Your task to perform on an android device: Open calendar and show me the third week of next month Image 0: 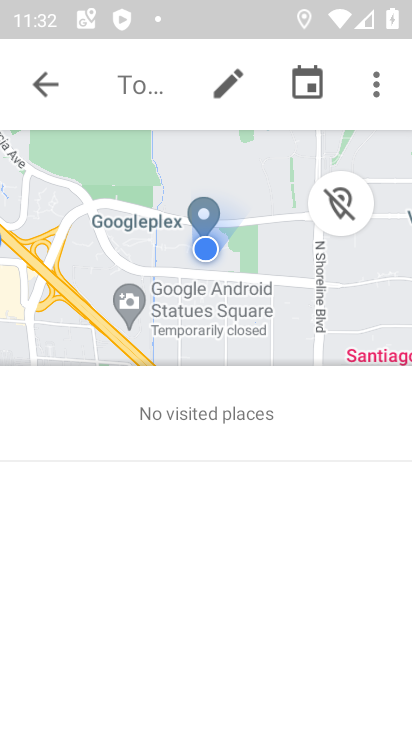
Step 0: press home button
Your task to perform on an android device: Open calendar and show me the third week of next month Image 1: 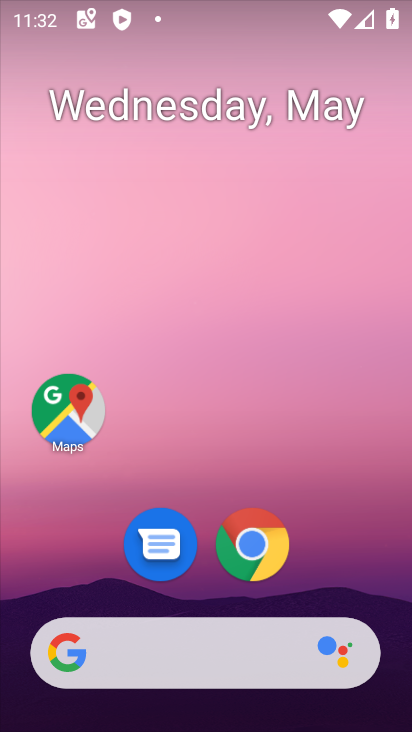
Step 1: click (119, 175)
Your task to perform on an android device: Open calendar and show me the third week of next month Image 2: 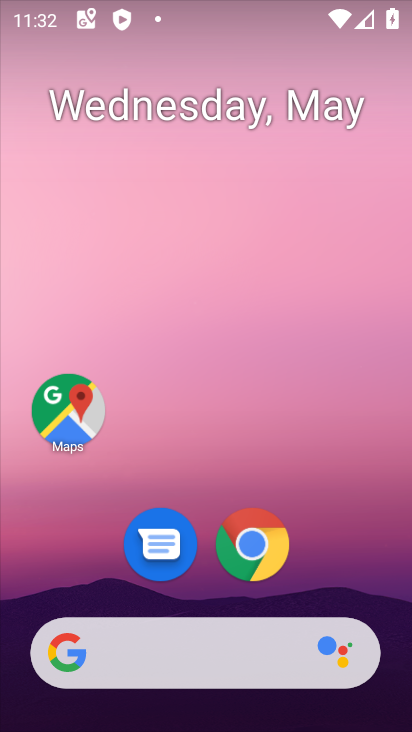
Step 2: click (116, 284)
Your task to perform on an android device: Open calendar and show me the third week of next month Image 3: 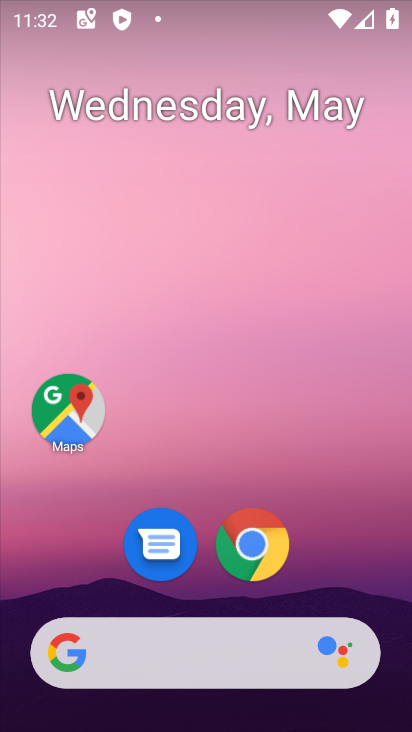
Step 3: drag from (185, 477) to (218, 73)
Your task to perform on an android device: Open calendar and show me the third week of next month Image 4: 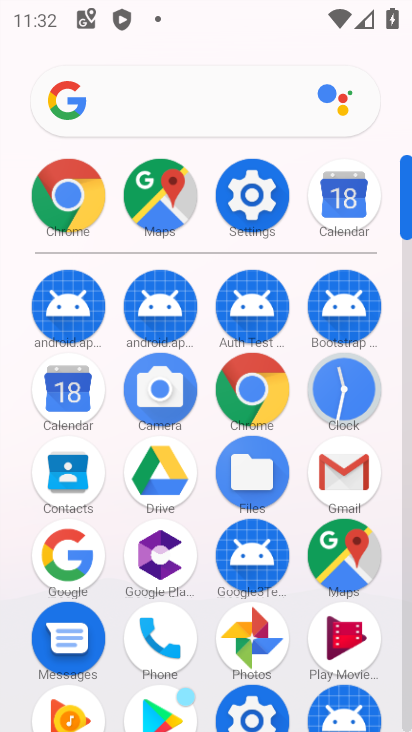
Step 4: click (70, 403)
Your task to perform on an android device: Open calendar and show me the third week of next month Image 5: 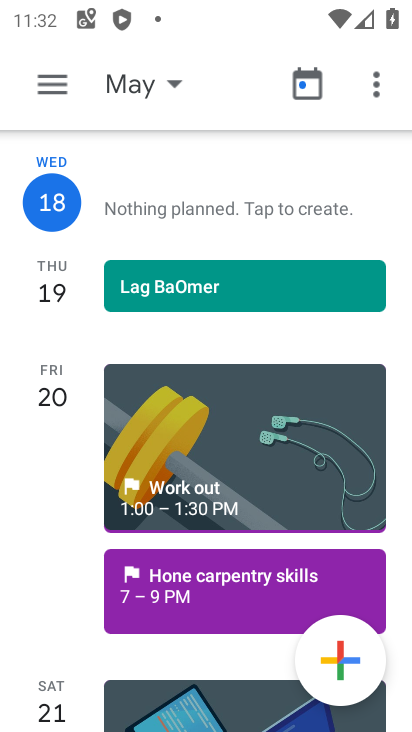
Step 5: click (172, 79)
Your task to perform on an android device: Open calendar and show me the third week of next month Image 6: 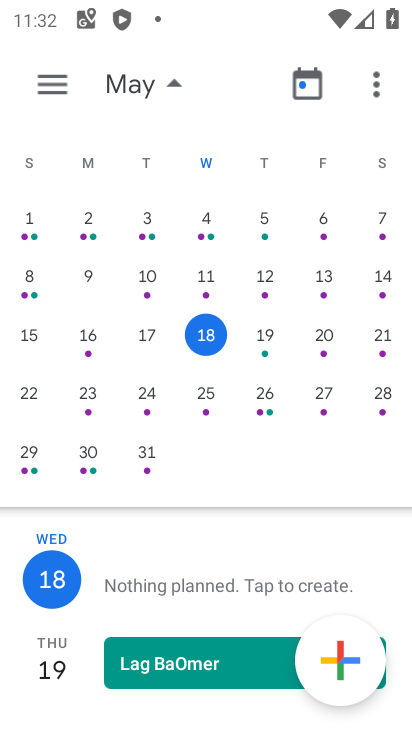
Step 6: drag from (345, 365) to (2, 336)
Your task to perform on an android device: Open calendar and show me the third week of next month Image 7: 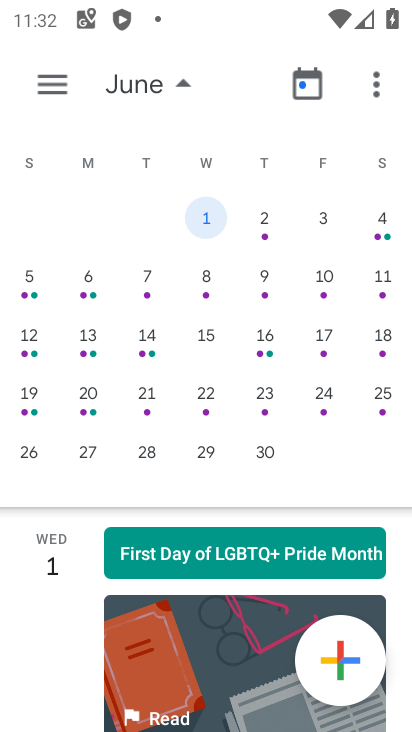
Step 7: click (269, 343)
Your task to perform on an android device: Open calendar and show me the third week of next month Image 8: 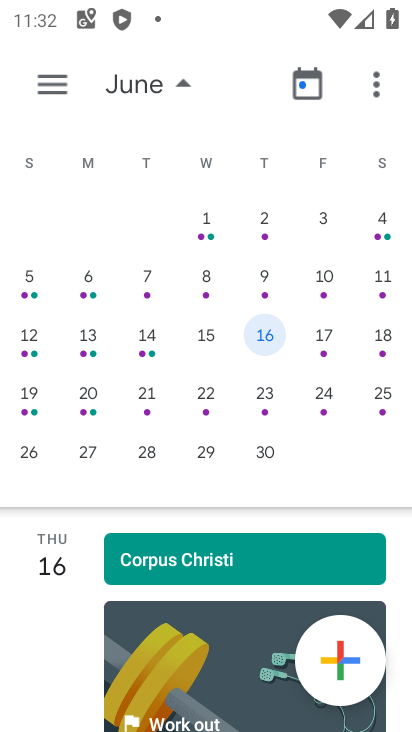
Step 8: task complete